Your task to perform on an android device: choose inbox layout in the gmail app Image 0: 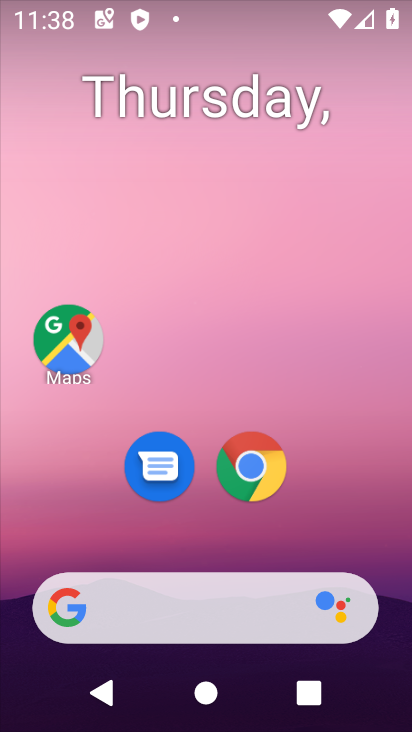
Step 0: drag from (380, 661) to (334, 51)
Your task to perform on an android device: choose inbox layout in the gmail app Image 1: 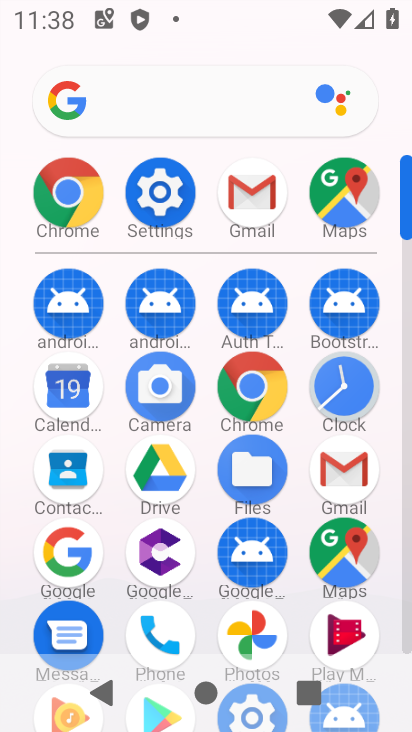
Step 1: click (328, 477)
Your task to perform on an android device: choose inbox layout in the gmail app Image 2: 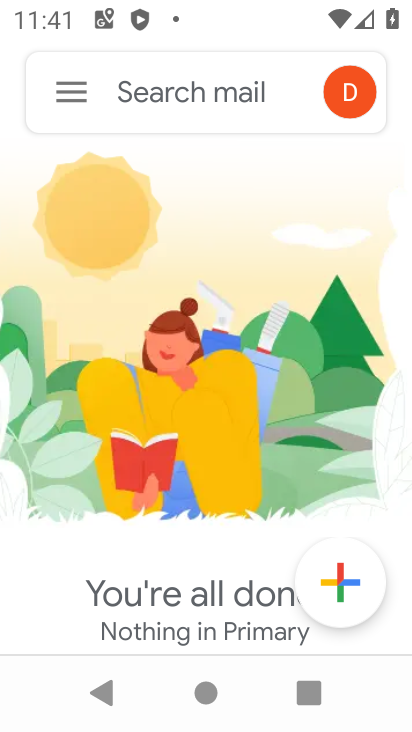
Step 2: task complete